Your task to perform on an android device: delete location history Image 0: 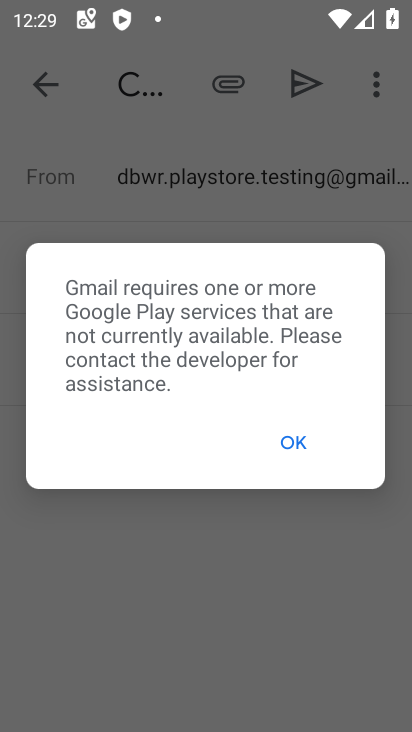
Step 0: press home button
Your task to perform on an android device: delete location history Image 1: 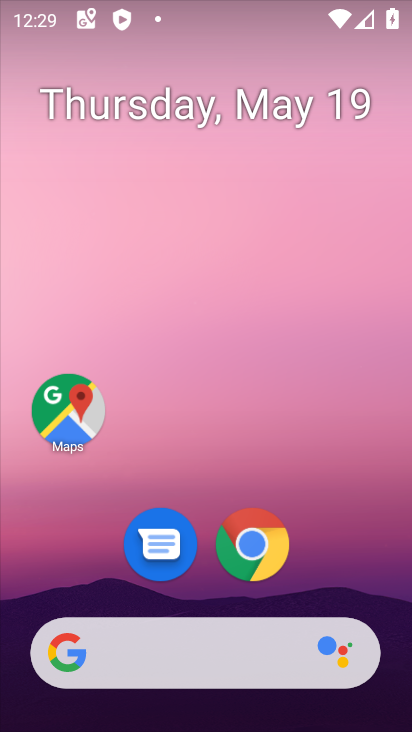
Step 1: drag from (298, 648) to (338, 160)
Your task to perform on an android device: delete location history Image 2: 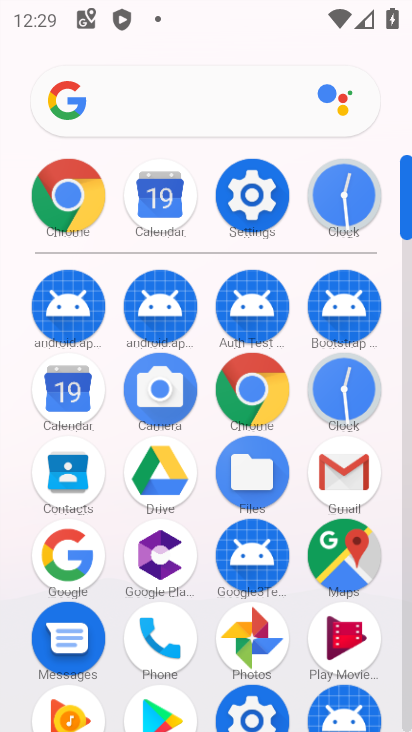
Step 2: click (266, 193)
Your task to perform on an android device: delete location history Image 3: 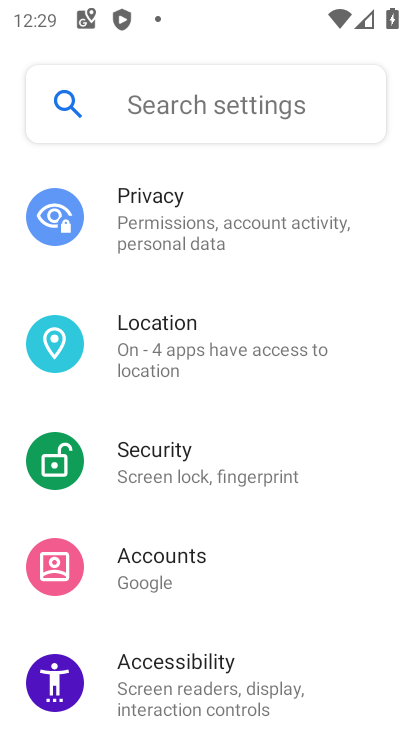
Step 3: press home button
Your task to perform on an android device: delete location history Image 4: 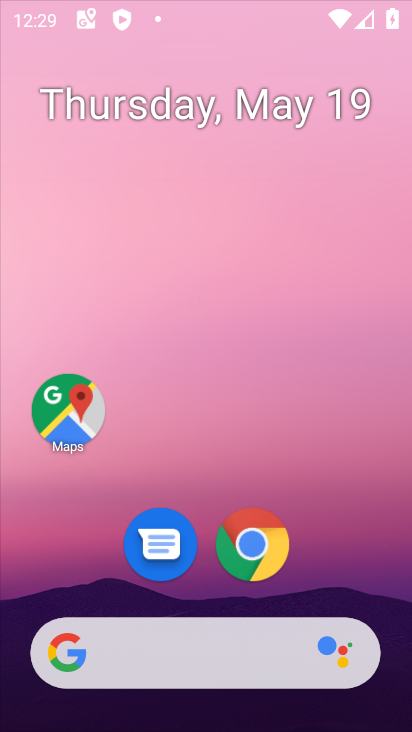
Step 4: drag from (343, 683) to (375, 75)
Your task to perform on an android device: delete location history Image 5: 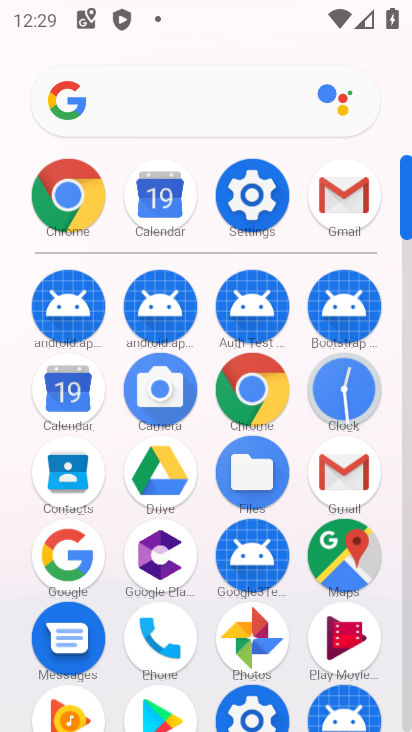
Step 5: click (349, 521)
Your task to perform on an android device: delete location history Image 6: 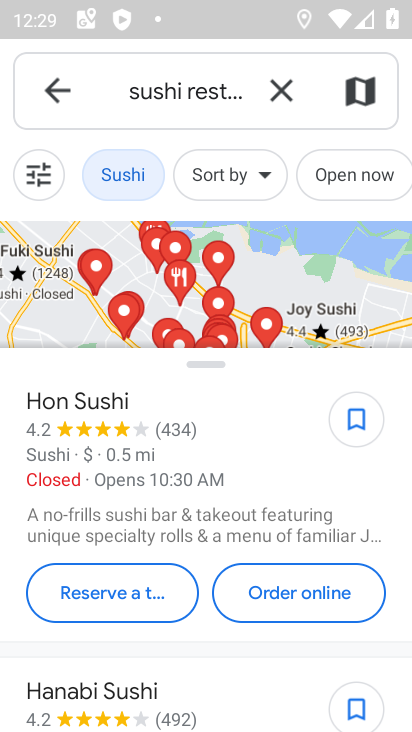
Step 6: press back button
Your task to perform on an android device: delete location history Image 7: 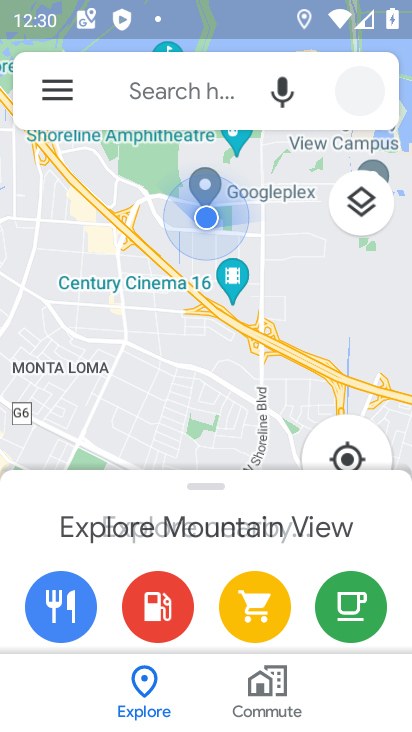
Step 7: click (54, 79)
Your task to perform on an android device: delete location history Image 8: 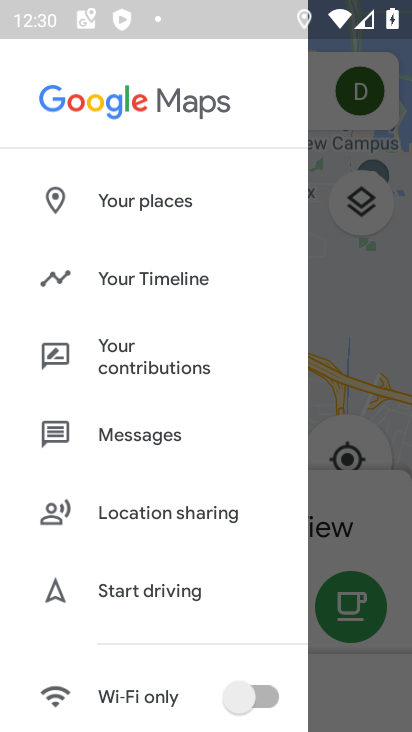
Step 8: click (212, 274)
Your task to perform on an android device: delete location history Image 9: 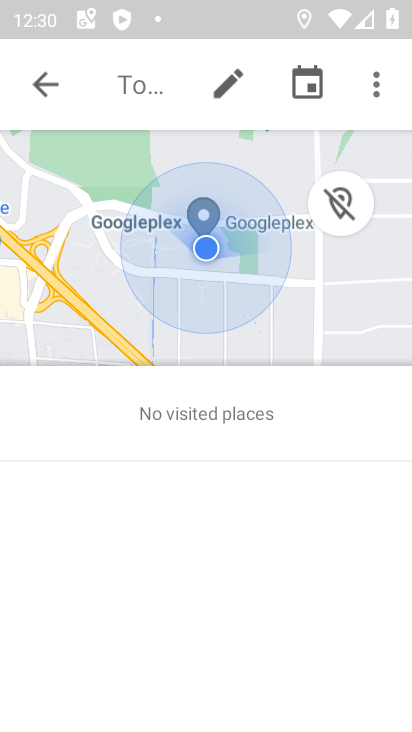
Step 9: click (376, 85)
Your task to perform on an android device: delete location history Image 10: 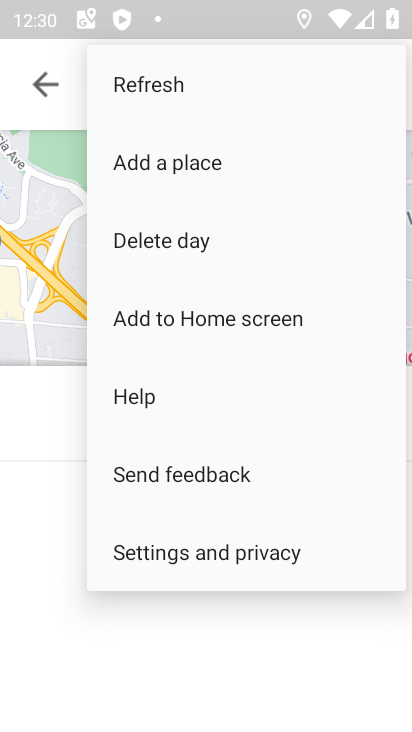
Step 10: click (219, 567)
Your task to perform on an android device: delete location history Image 11: 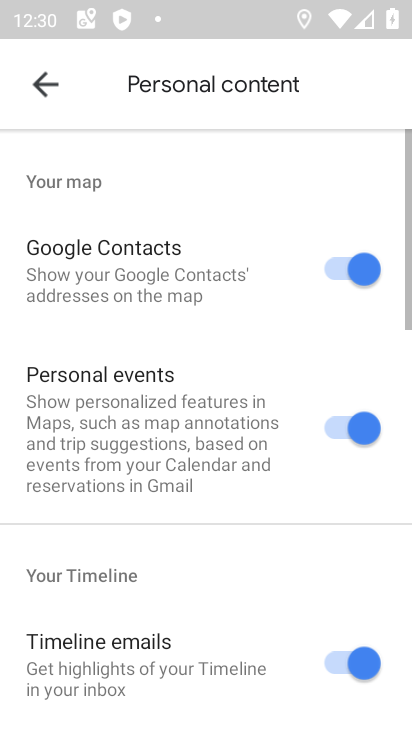
Step 11: drag from (226, 553) to (255, 48)
Your task to perform on an android device: delete location history Image 12: 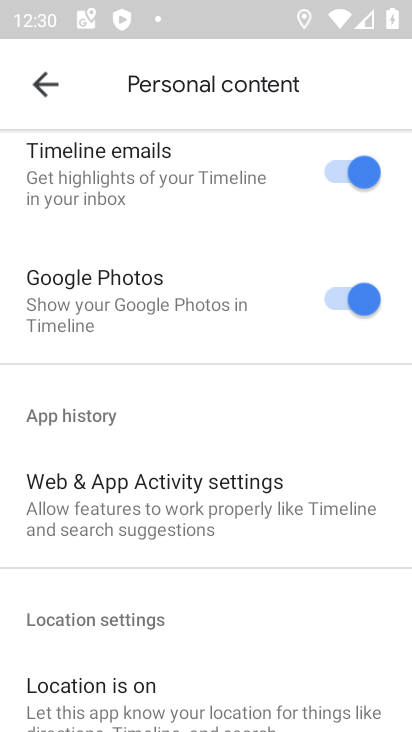
Step 12: drag from (214, 534) to (239, 164)
Your task to perform on an android device: delete location history Image 13: 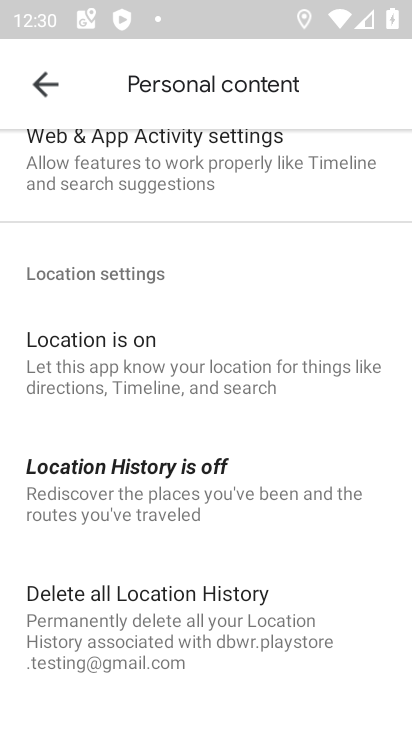
Step 13: click (206, 600)
Your task to perform on an android device: delete location history Image 14: 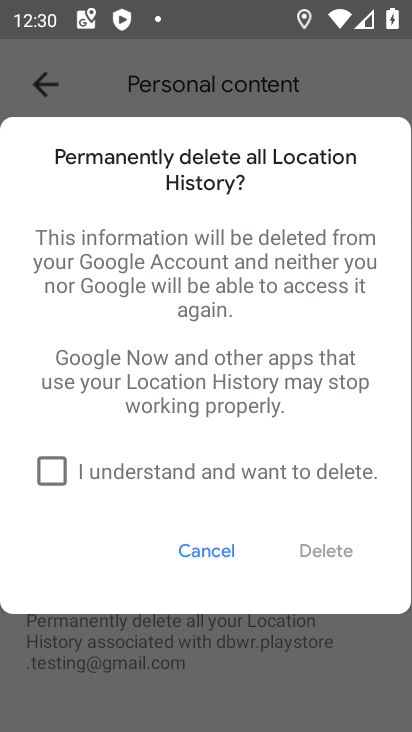
Step 14: click (54, 468)
Your task to perform on an android device: delete location history Image 15: 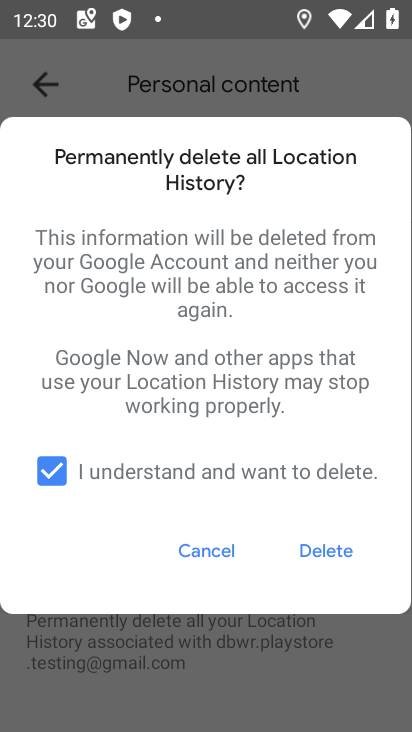
Step 15: click (334, 552)
Your task to perform on an android device: delete location history Image 16: 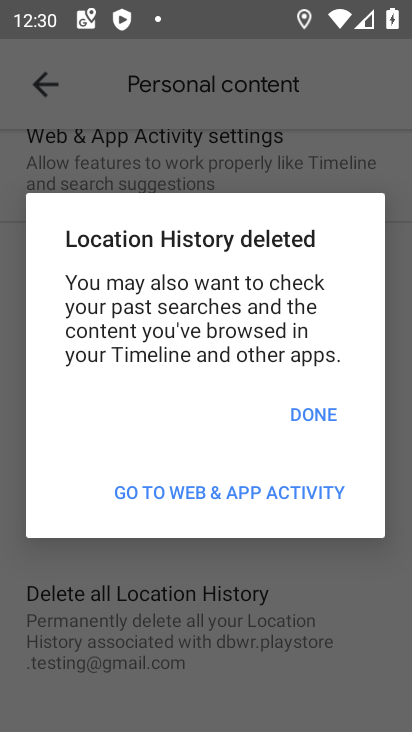
Step 16: click (328, 412)
Your task to perform on an android device: delete location history Image 17: 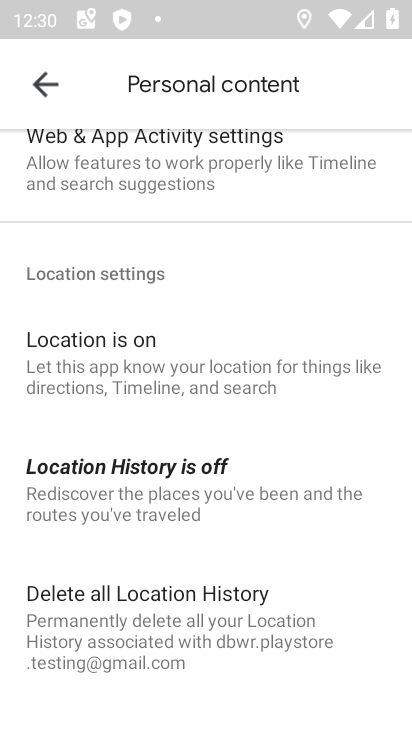
Step 17: task complete